Your task to perform on an android device: Search for vegetarian restaurants on Maps Image 0: 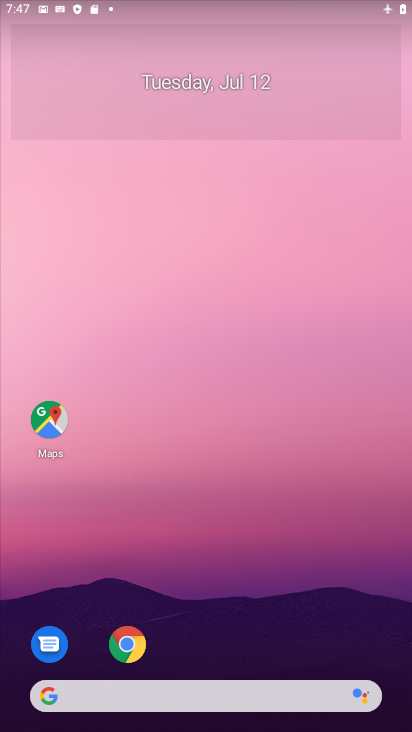
Step 0: click (34, 437)
Your task to perform on an android device: Search for vegetarian restaurants on Maps Image 1: 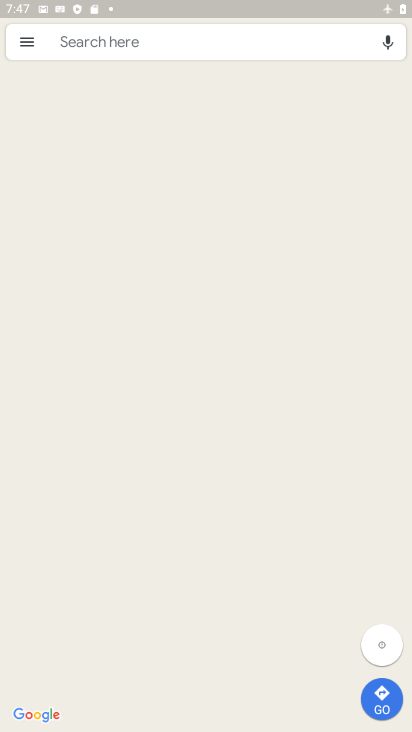
Step 1: click (201, 41)
Your task to perform on an android device: Search for vegetarian restaurants on Maps Image 2: 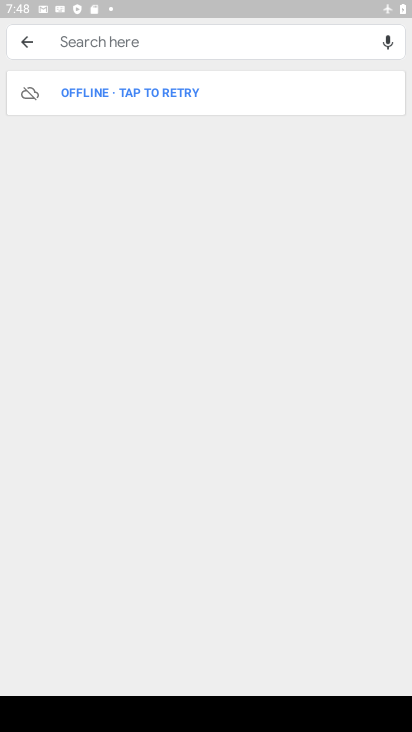
Step 2: type "vegetarian restaurant"
Your task to perform on an android device: Search for vegetarian restaurants on Maps Image 3: 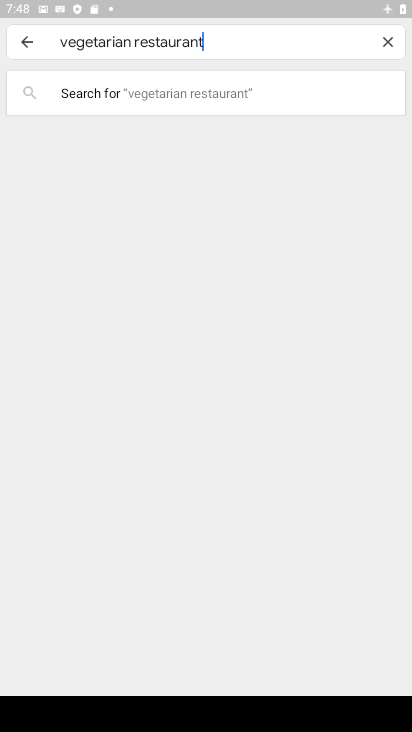
Step 3: task complete